Your task to perform on an android device: choose inbox layout in the gmail app Image 0: 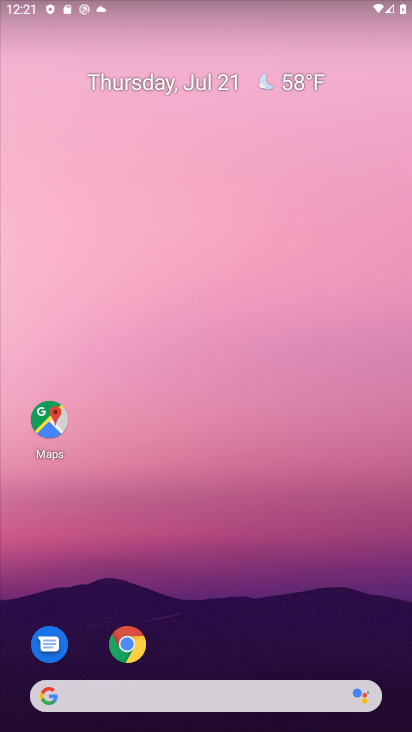
Step 0: press home button
Your task to perform on an android device: choose inbox layout in the gmail app Image 1: 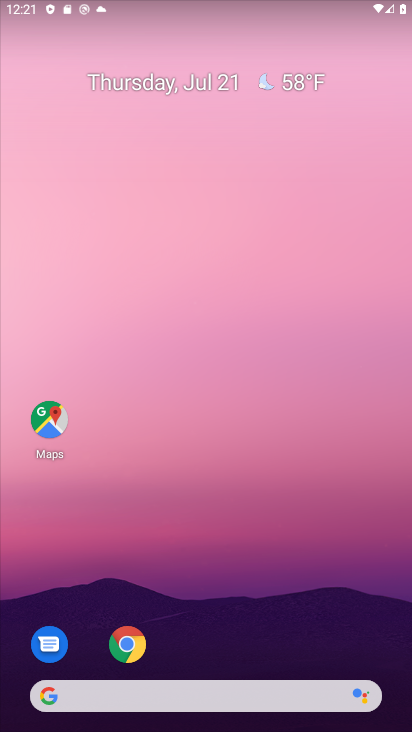
Step 1: drag from (209, 632) to (204, 156)
Your task to perform on an android device: choose inbox layout in the gmail app Image 2: 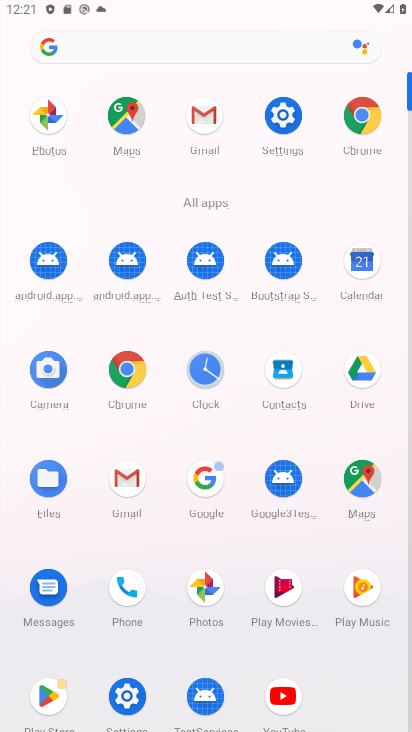
Step 2: click (155, 478)
Your task to perform on an android device: choose inbox layout in the gmail app Image 3: 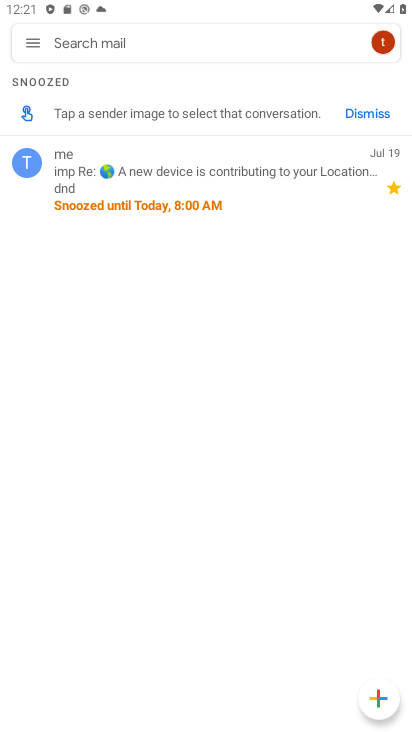
Step 3: click (35, 37)
Your task to perform on an android device: choose inbox layout in the gmail app Image 4: 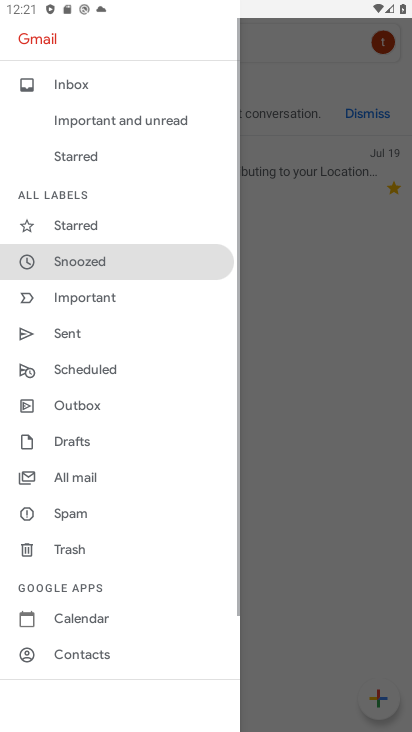
Step 4: drag from (95, 654) to (72, 493)
Your task to perform on an android device: choose inbox layout in the gmail app Image 5: 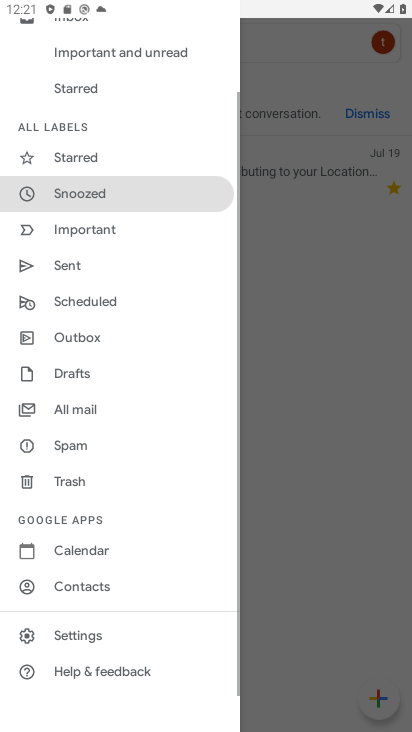
Step 5: click (48, 637)
Your task to perform on an android device: choose inbox layout in the gmail app Image 6: 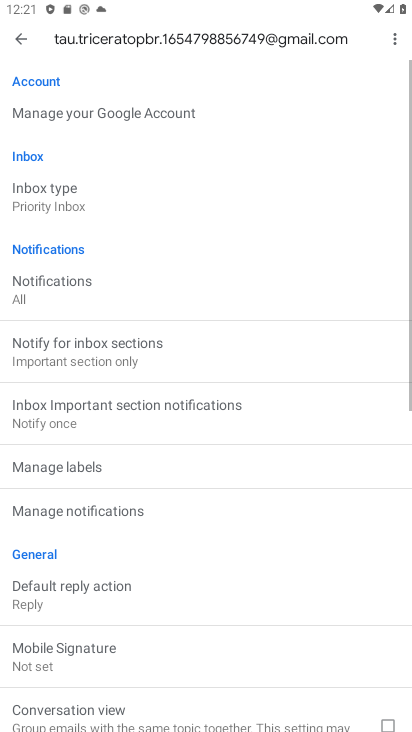
Step 6: click (80, 195)
Your task to perform on an android device: choose inbox layout in the gmail app Image 7: 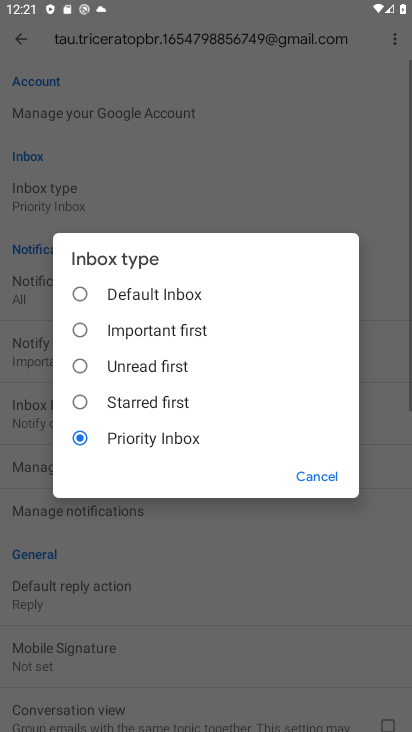
Step 7: click (107, 359)
Your task to perform on an android device: choose inbox layout in the gmail app Image 8: 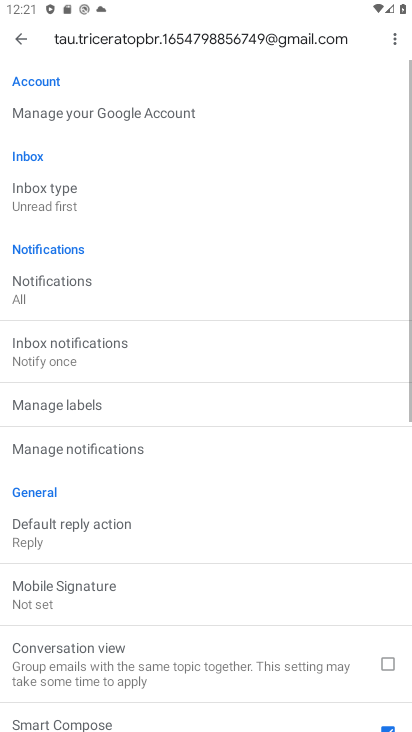
Step 8: task complete